Your task to perform on an android device: toggle data saver in the chrome app Image 0: 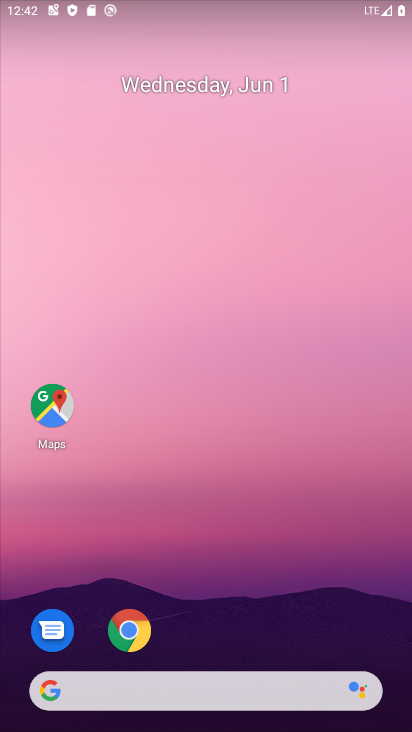
Step 0: click (135, 616)
Your task to perform on an android device: toggle data saver in the chrome app Image 1: 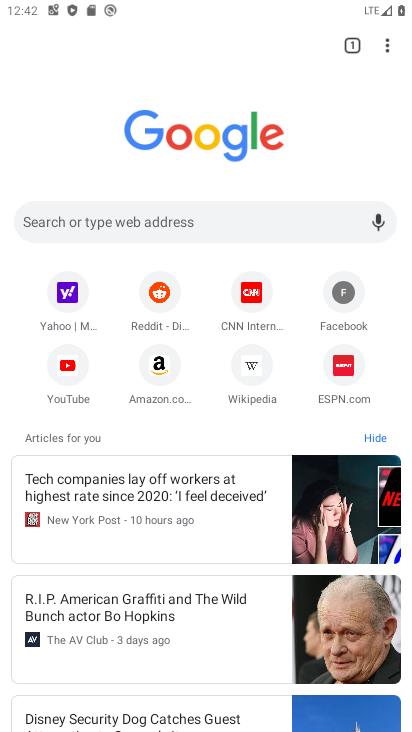
Step 1: drag from (389, 41) to (241, 383)
Your task to perform on an android device: toggle data saver in the chrome app Image 2: 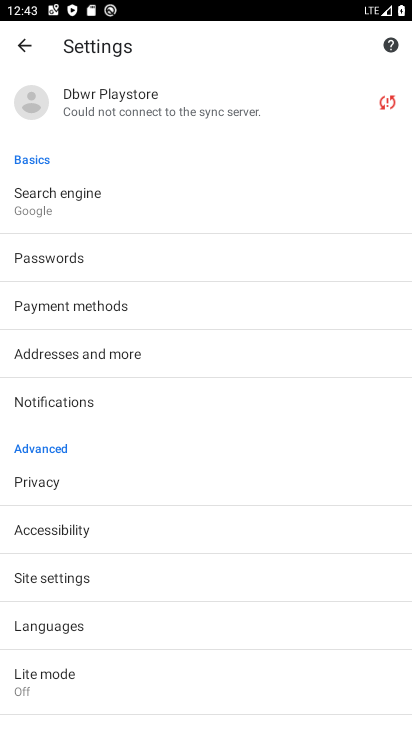
Step 2: click (53, 683)
Your task to perform on an android device: toggle data saver in the chrome app Image 3: 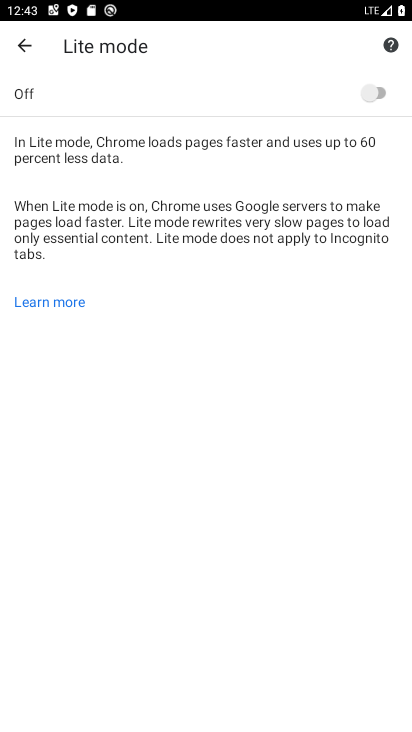
Step 3: click (379, 88)
Your task to perform on an android device: toggle data saver in the chrome app Image 4: 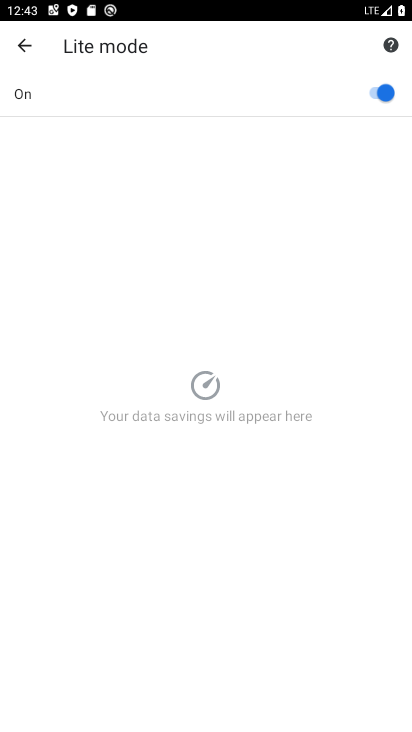
Step 4: task complete